Your task to perform on an android device: turn off location history Image 0: 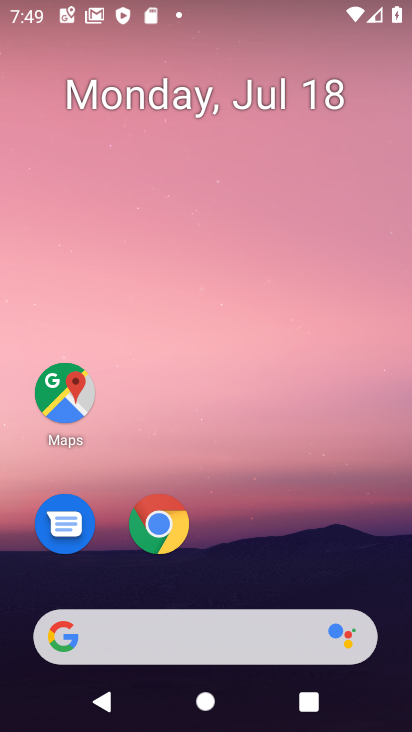
Step 0: drag from (259, 534) to (285, 50)
Your task to perform on an android device: turn off location history Image 1: 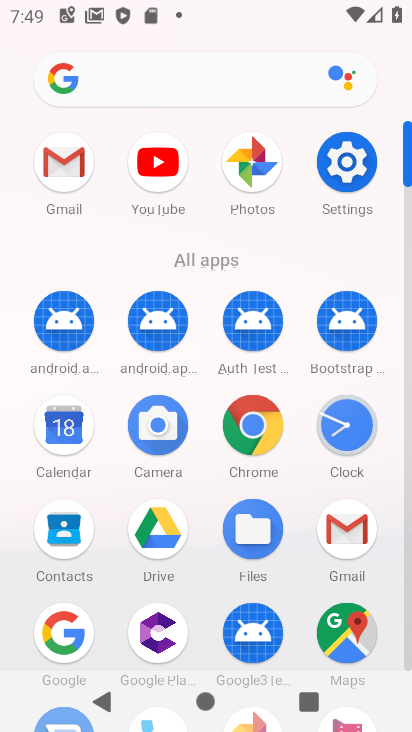
Step 1: click (348, 158)
Your task to perform on an android device: turn off location history Image 2: 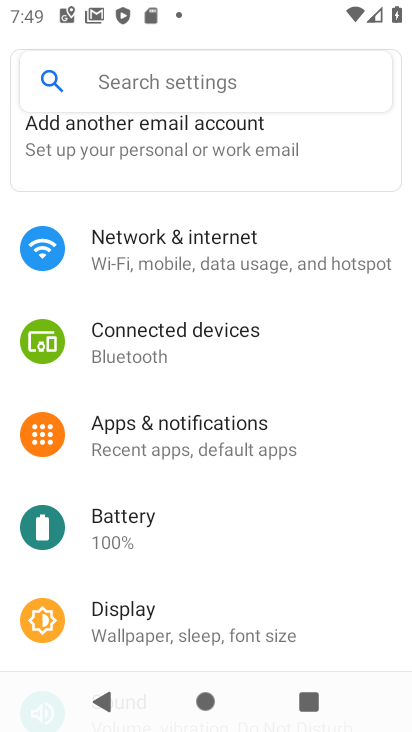
Step 2: drag from (254, 556) to (267, 33)
Your task to perform on an android device: turn off location history Image 3: 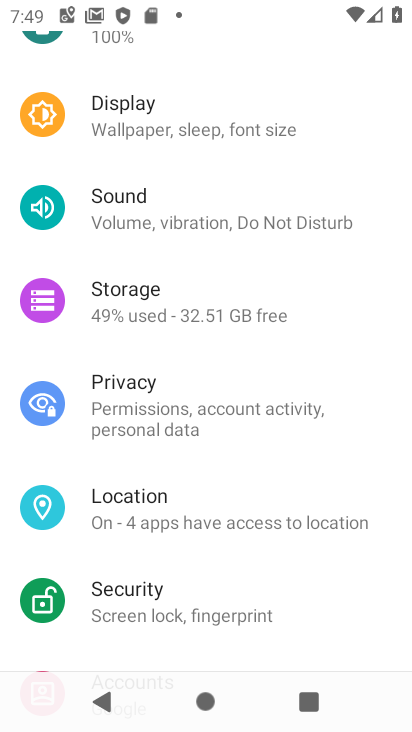
Step 3: click (207, 519)
Your task to perform on an android device: turn off location history Image 4: 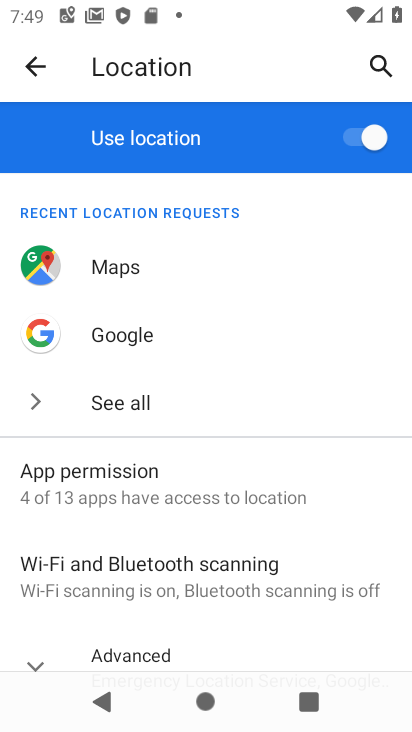
Step 4: drag from (217, 538) to (279, 237)
Your task to perform on an android device: turn off location history Image 5: 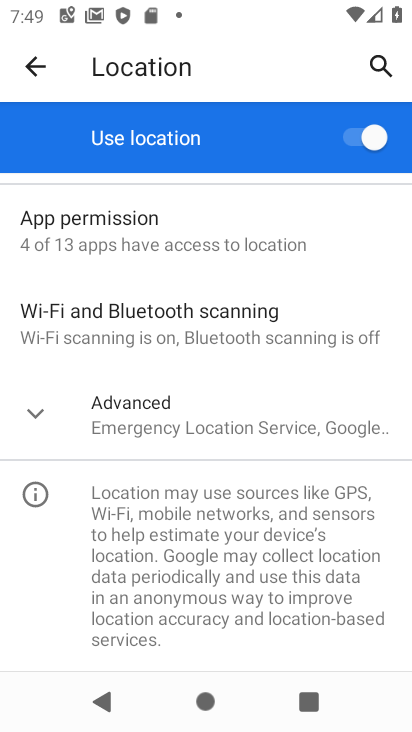
Step 5: click (40, 415)
Your task to perform on an android device: turn off location history Image 6: 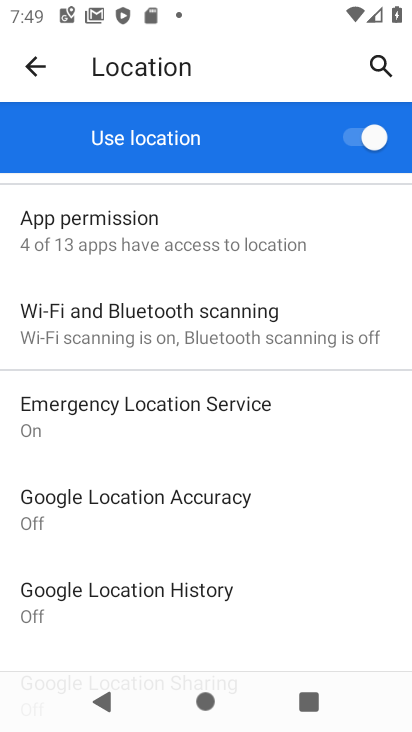
Step 6: click (122, 591)
Your task to perform on an android device: turn off location history Image 7: 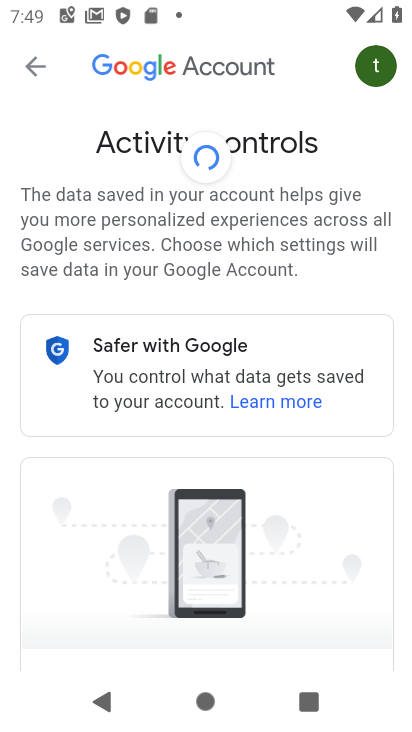
Step 7: task complete